Your task to perform on an android device: open app "Expedia: Hotels, Flights & Car" (install if not already installed) and enter user name: "crusader@outlook.com" and password: "Toryize" Image 0: 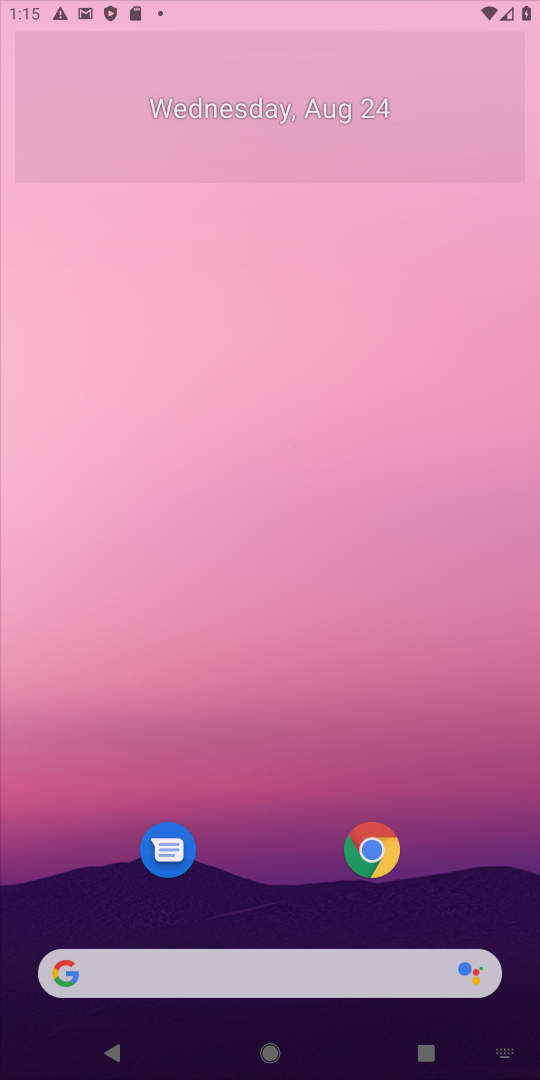
Step 0: press home button
Your task to perform on an android device: open app "Expedia: Hotels, Flights & Car" (install if not already installed) and enter user name: "crusader@outlook.com" and password: "Toryize" Image 1: 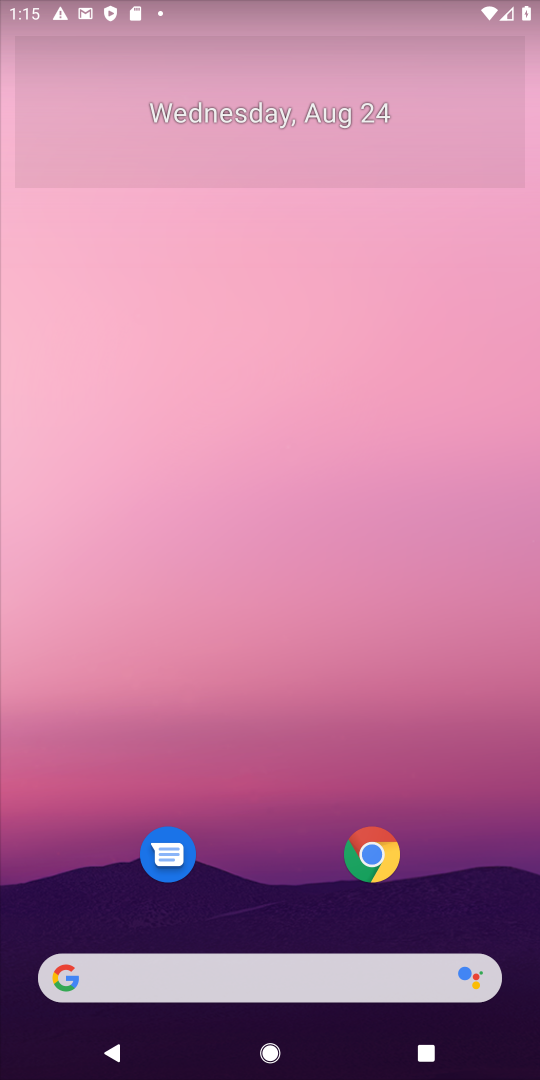
Step 1: drag from (465, 895) to (480, 64)
Your task to perform on an android device: open app "Expedia: Hotels, Flights & Car" (install if not already installed) and enter user name: "crusader@outlook.com" and password: "Toryize" Image 2: 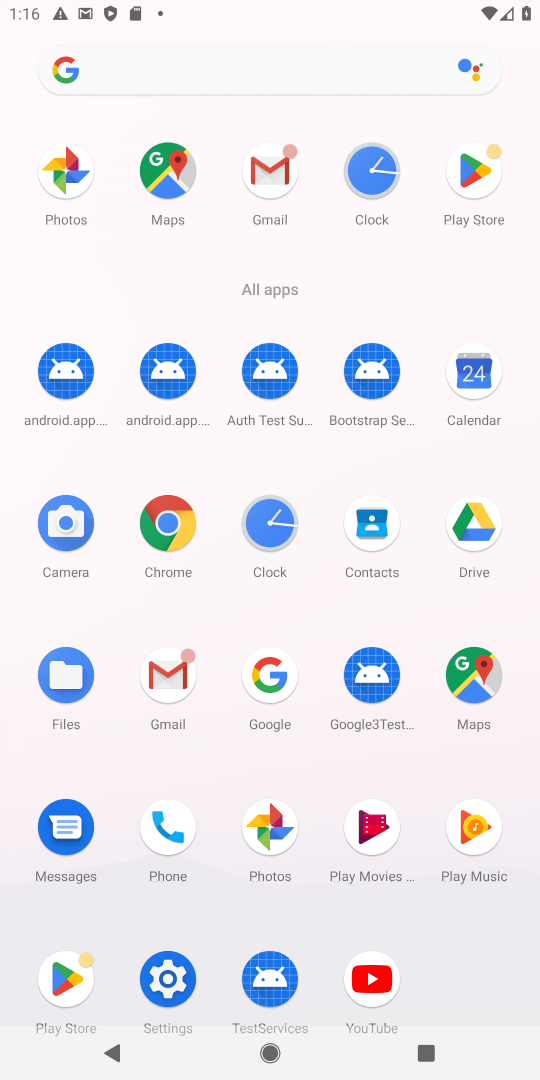
Step 2: click (475, 170)
Your task to perform on an android device: open app "Expedia: Hotels, Flights & Car" (install if not already installed) and enter user name: "crusader@outlook.com" and password: "Toryize" Image 3: 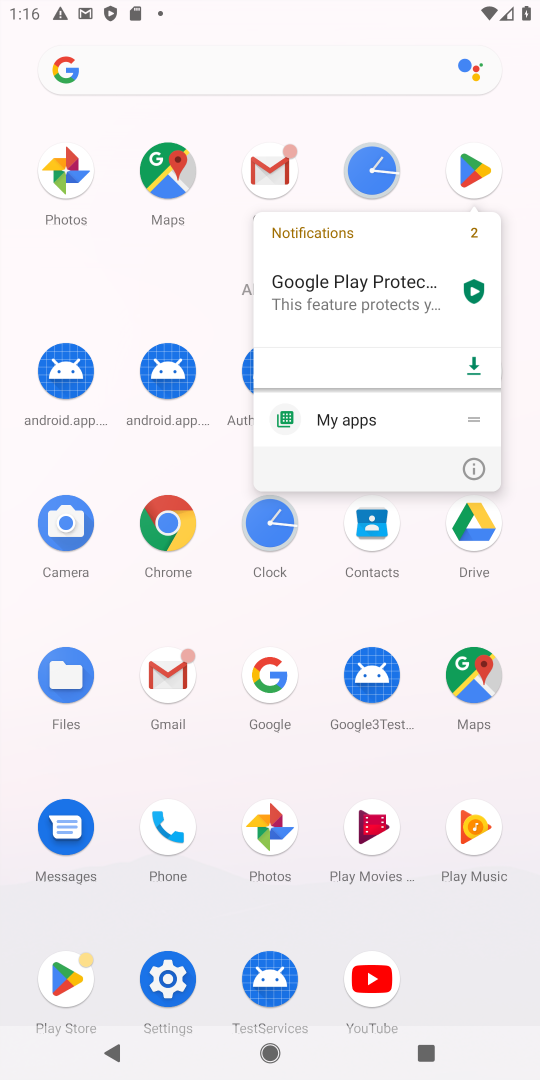
Step 3: click (463, 178)
Your task to perform on an android device: open app "Expedia: Hotels, Flights & Car" (install if not already installed) and enter user name: "crusader@outlook.com" and password: "Toryize" Image 4: 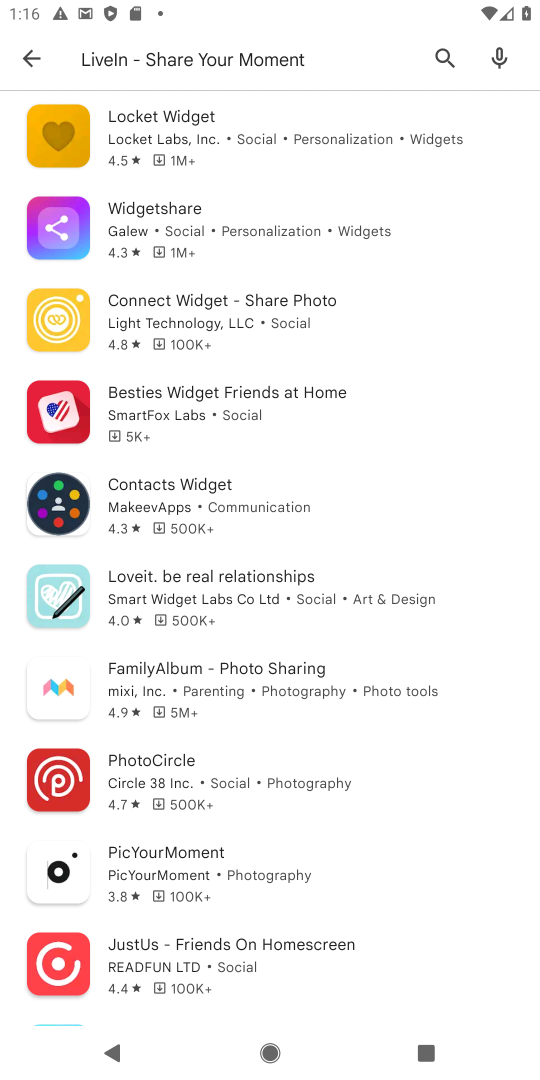
Step 4: press back button
Your task to perform on an android device: open app "Expedia: Hotels, Flights & Car" (install if not already installed) and enter user name: "crusader@outlook.com" and password: "Toryize" Image 5: 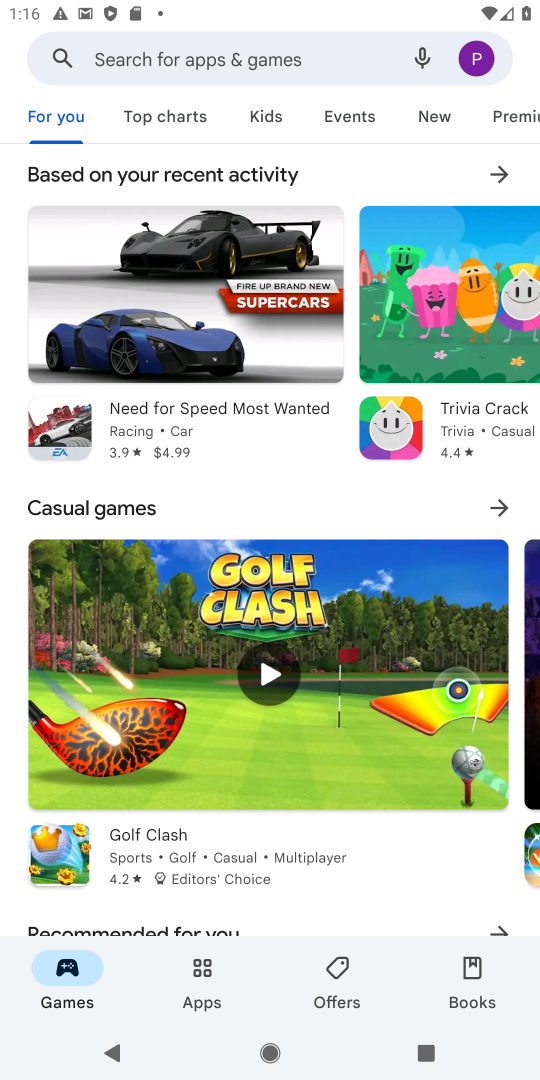
Step 5: click (286, 60)
Your task to perform on an android device: open app "Expedia: Hotels, Flights & Car" (install if not already installed) and enter user name: "crusader@outlook.com" and password: "Toryize" Image 6: 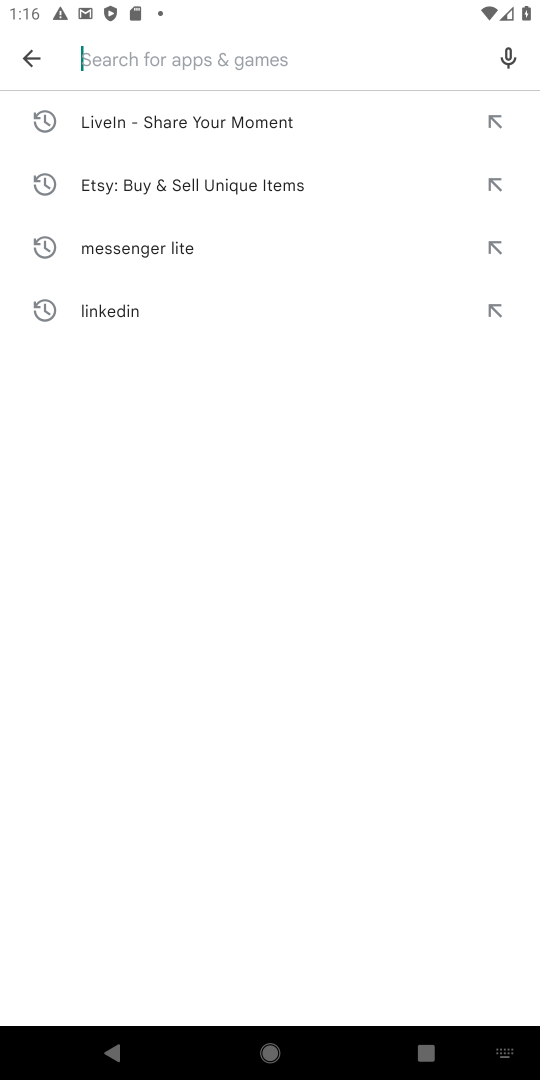
Step 6: type "Expedia: Hotels, Flights & Car"
Your task to perform on an android device: open app "Expedia: Hotels, Flights & Car" (install if not already installed) and enter user name: "crusader@outlook.com" and password: "Toryize" Image 7: 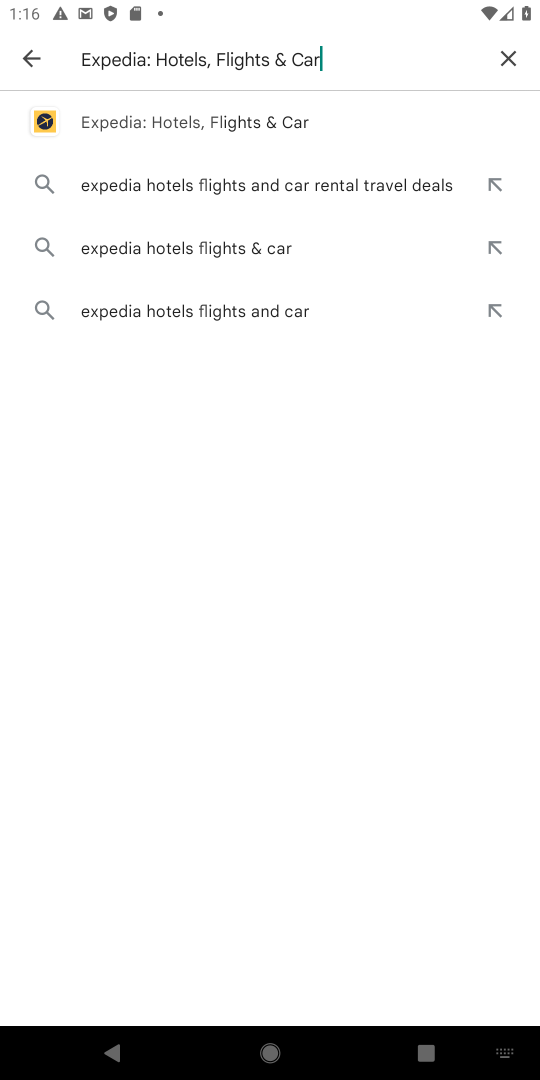
Step 7: press enter
Your task to perform on an android device: open app "Expedia: Hotels, Flights & Car" (install if not already installed) and enter user name: "crusader@outlook.com" and password: "Toryize" Image 8: 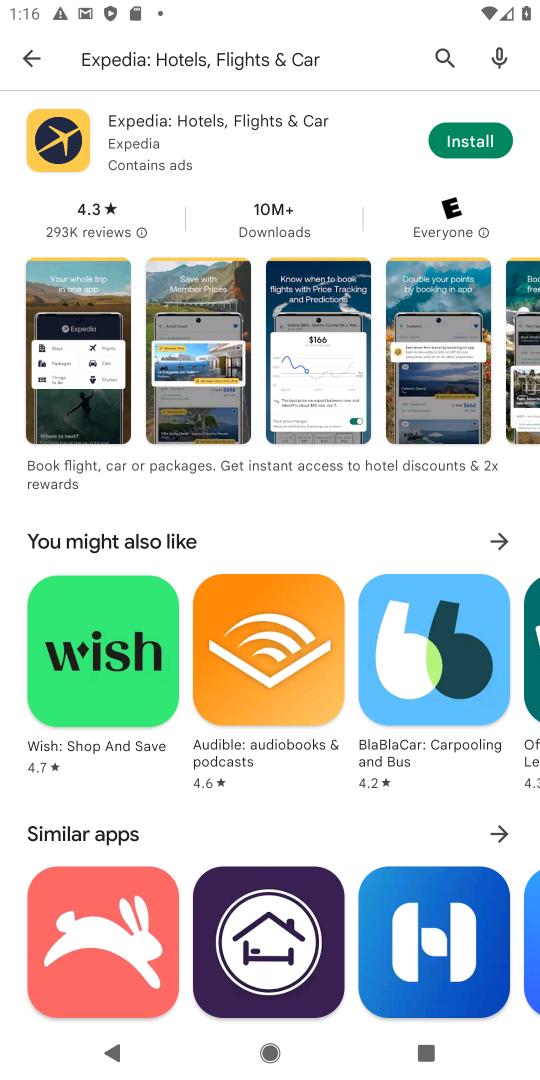
Step 8: click (500, 135)
Your task to perform on an android device: open app "Expedia: Hotels, Flights & Car" (install if not already installed) and enter user name: "crusader@outlook.com" and password: "Toryize" Image 9: 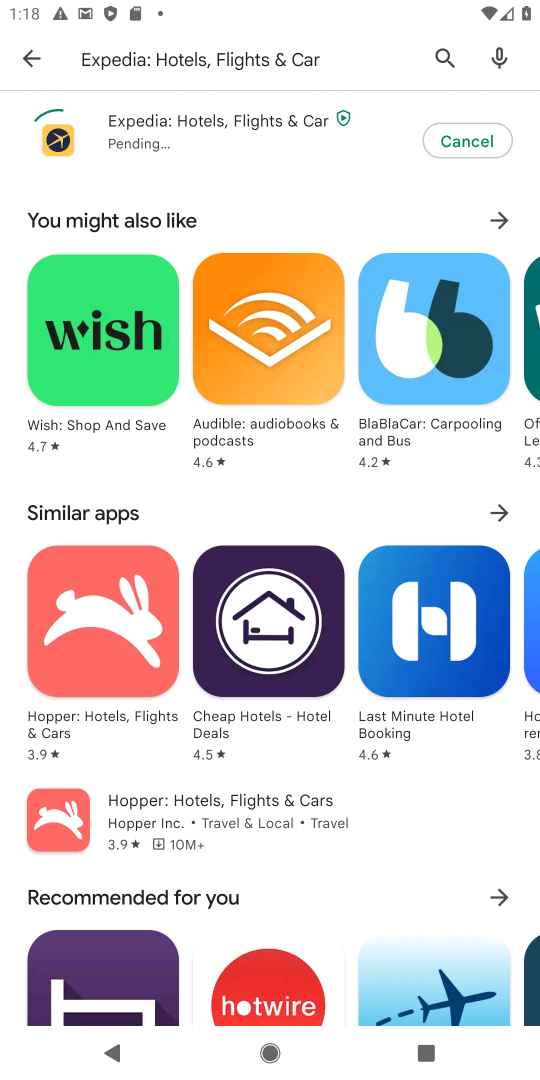
Step 9: task complete